Your task to perform on an android device: Go to wifi settings Image 0: 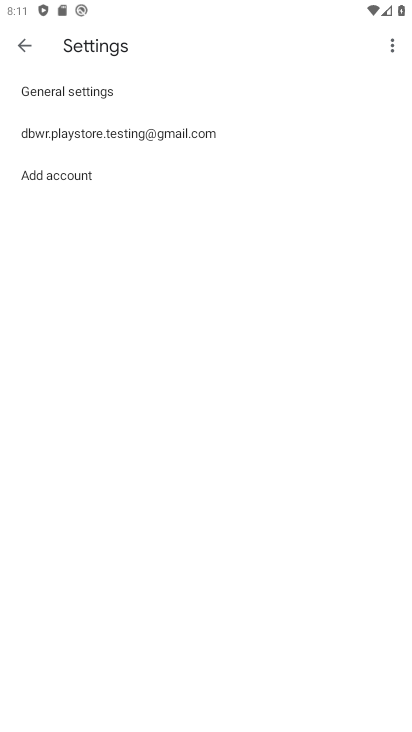
Step 0: press home button
Your task to perform on an android device: Go to wifi settings Image 1: 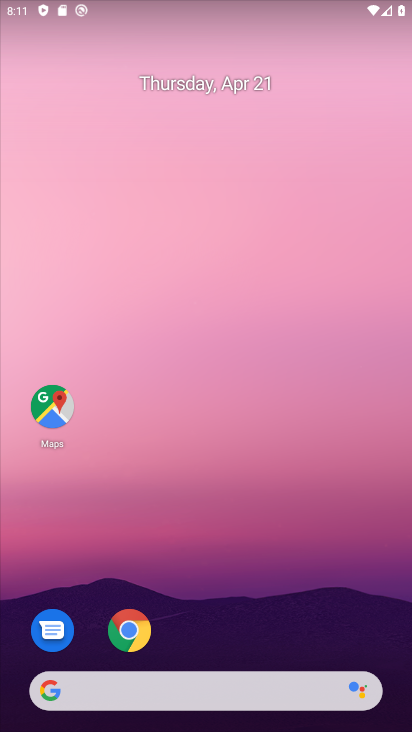
Step 1: drag from (289, 384) to (393, 9)
Your task to perform on an android device: Go to wifi settings Image 2: 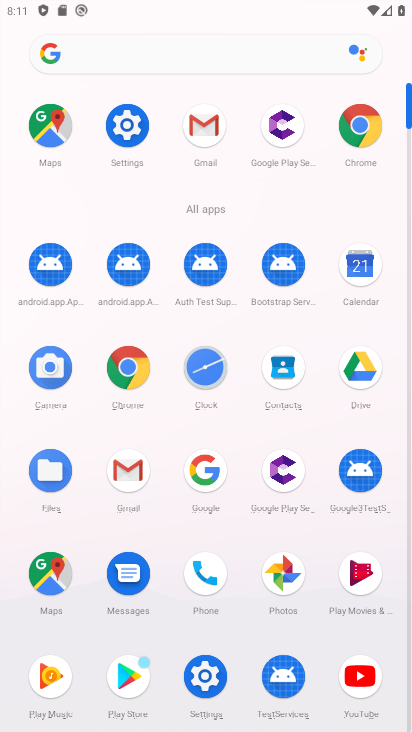
Step 2: click (145, 147)
Your task to perform on an android device: Go to wifi settings Image 3: 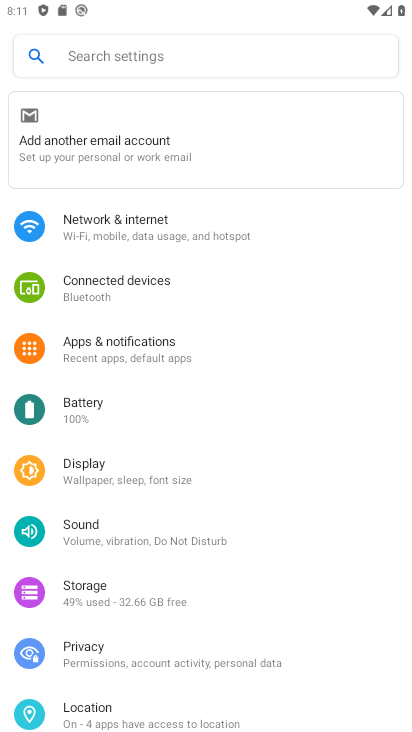
Step 3: click (141, 235)
Your task to perform on an android device: Go to wifi settings Image 4: 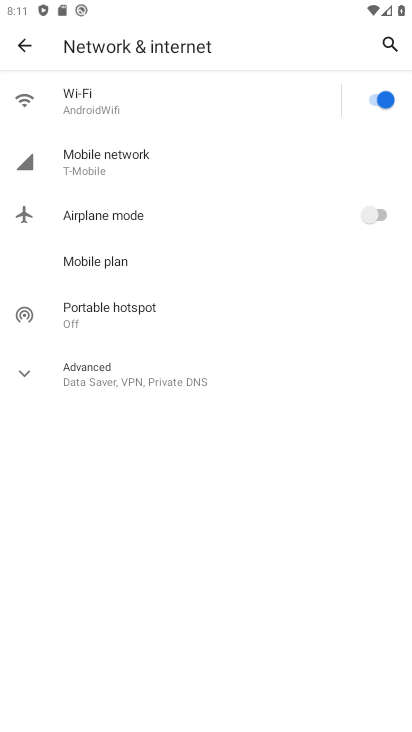
Step 4: click (100, 104)
Your task to perform on an android device: Go to wifi settings Image 5: 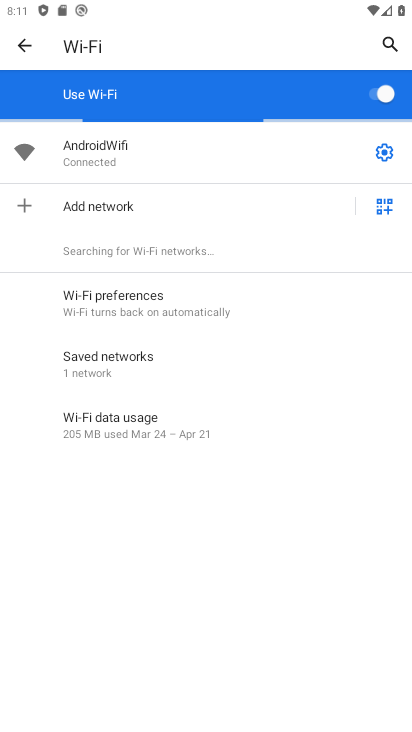
Step 5: task complete